Your task to perform on an android device: Turn off the flashlight Image 0: 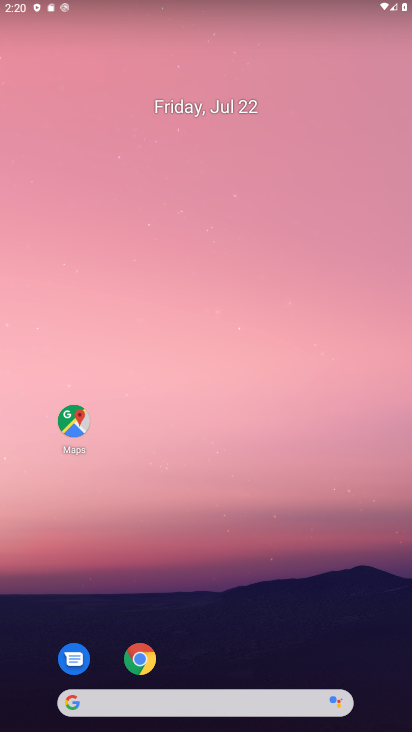
Step 0: task complete